Your task to perform on an android device: empty trash in google photos Image 0: 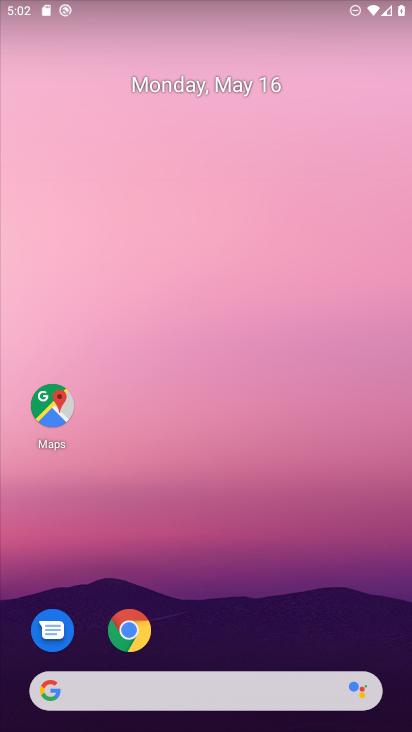
Step 0: press home button
Your task to perform on an android device: empty trash in google photos Image 1: 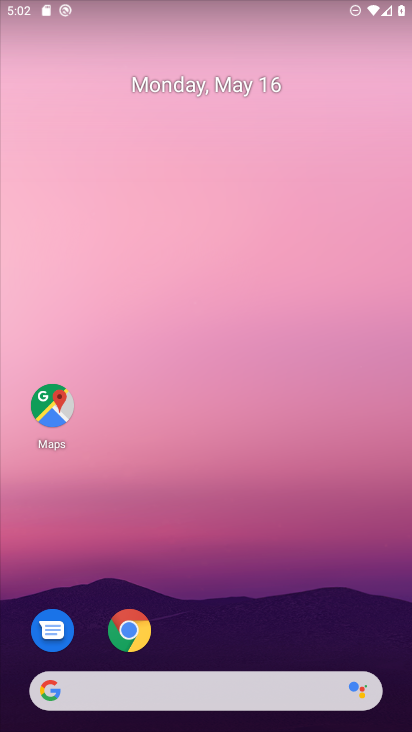
Step 1: drag from (315, 592) to (321, 46)
Your task to perform on an android device: empty trash in google photos Image 2: 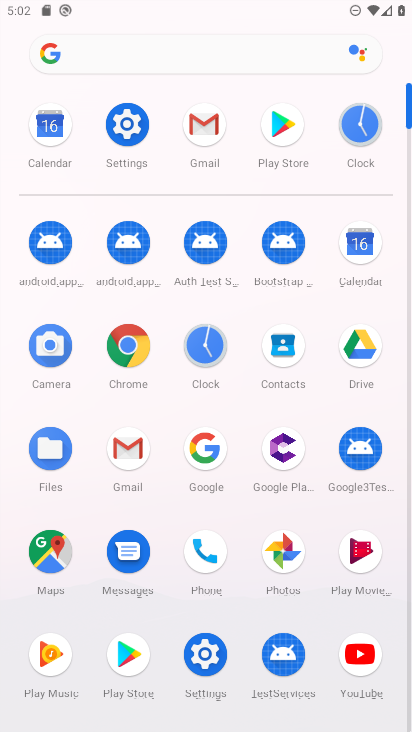
Step 2: click (290, 549)
Your task to perform on an android device: empty trash in google photos Image 3: 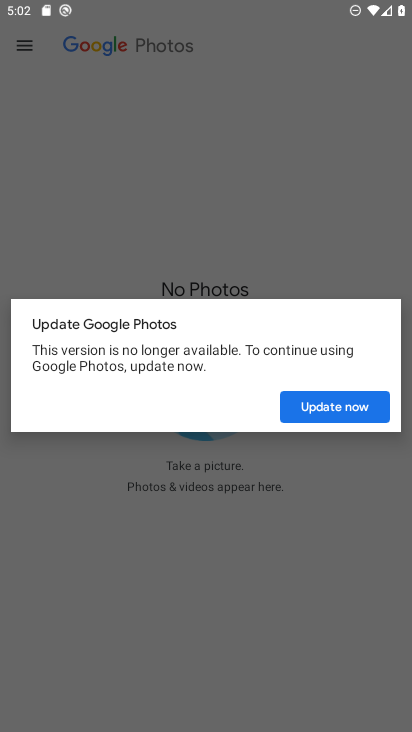
Step 3: click (360, 399)
Your task to perform on an android device: empty trash in google photos Image 4: 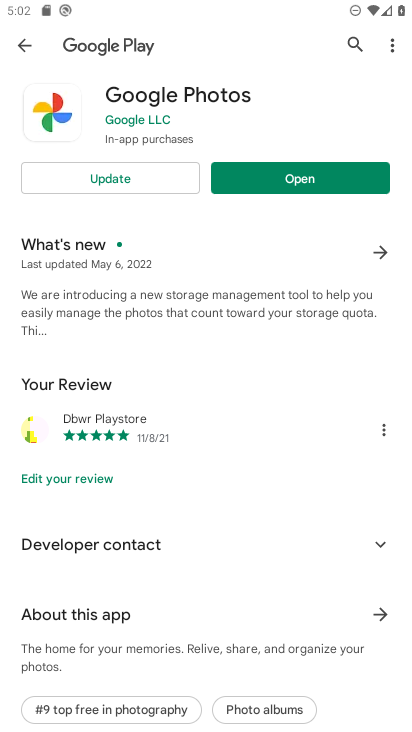
Step 4: click (269, 189)
Your task to perform on an android device: empty trash in google photos Image 5: 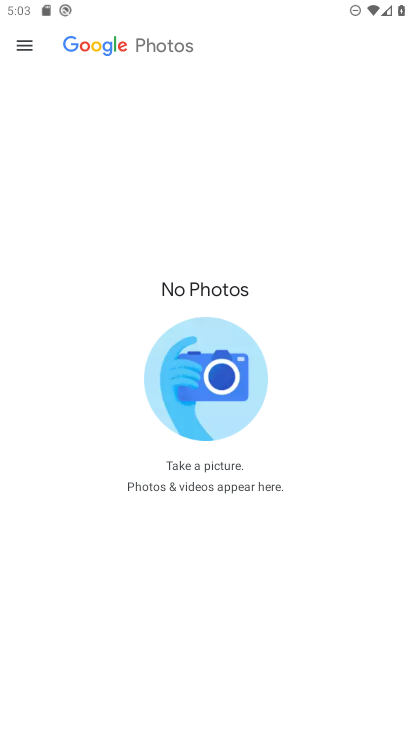
Step 5: click (255, 406)
Your task to perform on an android device: empty trash in google photos Image 6: 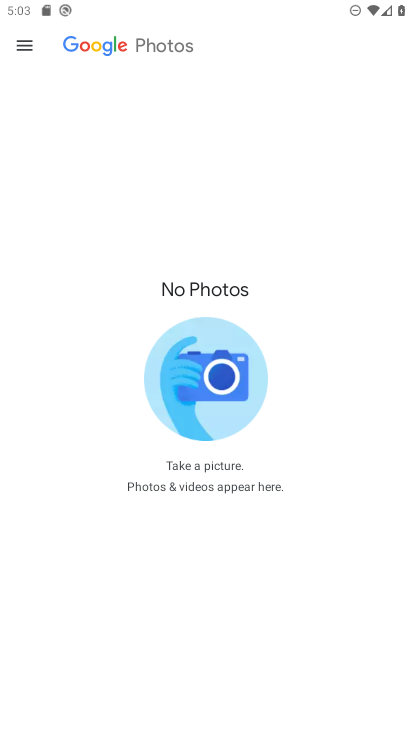
Step 6: click (13, 34)
Your task to perform on an android device: empty trash in google photos Image 7: 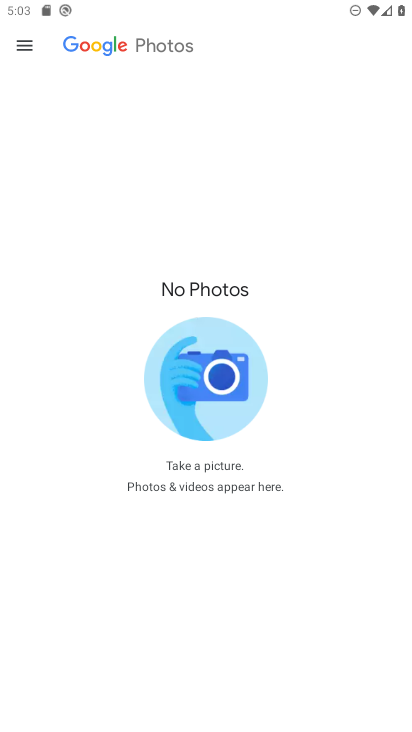
Step 7: click (32, 40)
Your task to perform on an android device: empty trash in google photos Image 8: 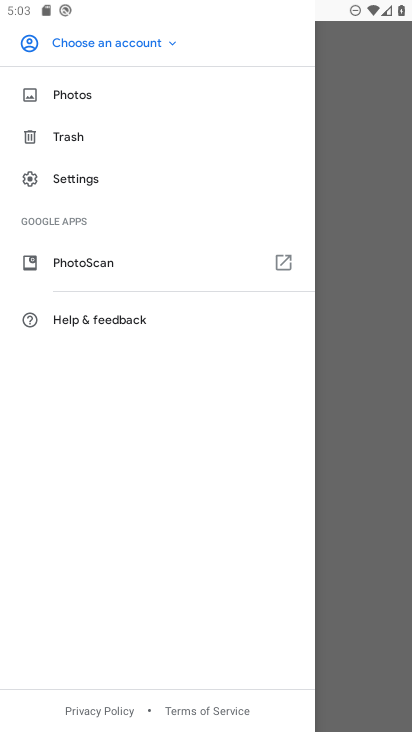
Step 8: click (113, 127)
Your task to perform on an android device: empty trash in google photos Image 9: 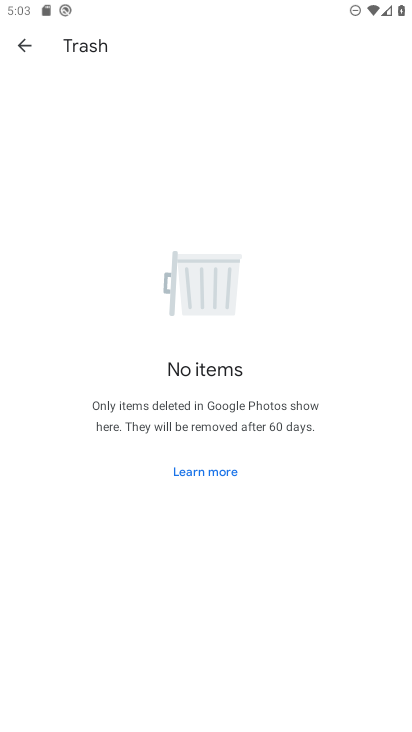
Step 9: task complete